Your task to perform on an android device: open device folders in google photos Image 0: 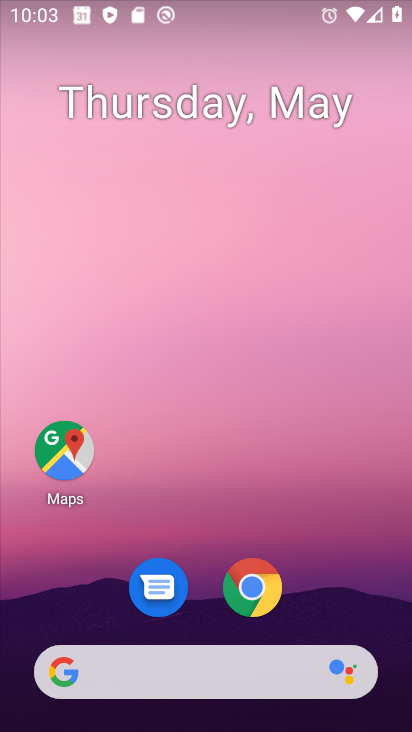
Step 0: drag from (385, 632) to (358, 16)
Your task to perform on an android device: open device folders in google photos Image 1: 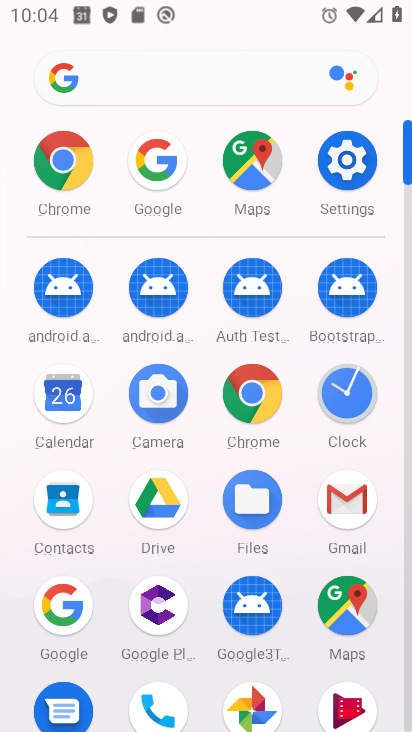
Step 1: click (242, 694)
Your task to perform on an android device: open device folders in google photos Image 2: 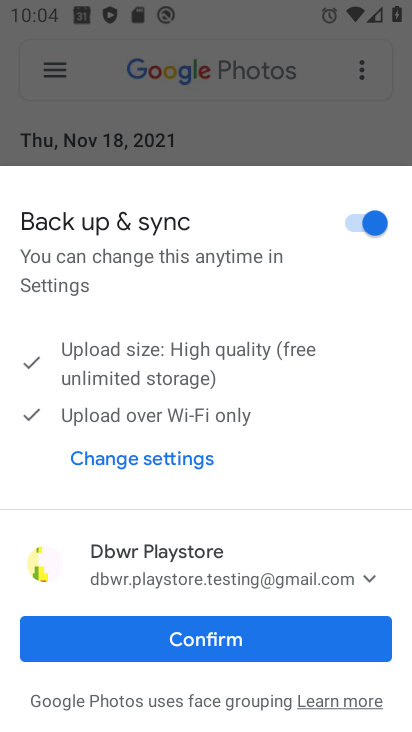
Step 2: click (211, 640)
Your task to perform on an android device: open device folders in google photos Image 3: 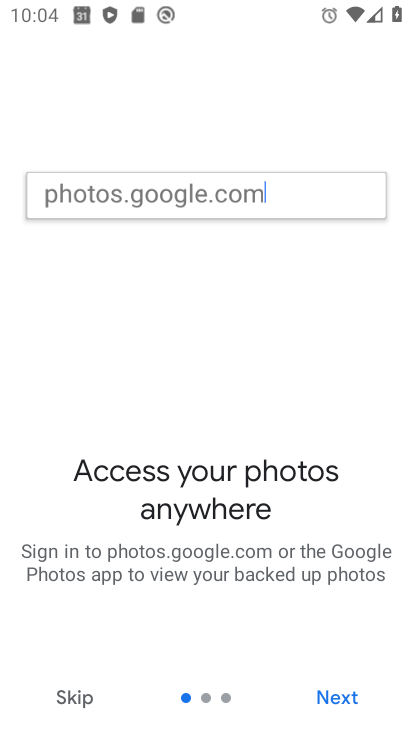
Step 3: click (342, 710)
Your task to perform on an android device: open device folders in google photos Image 4: 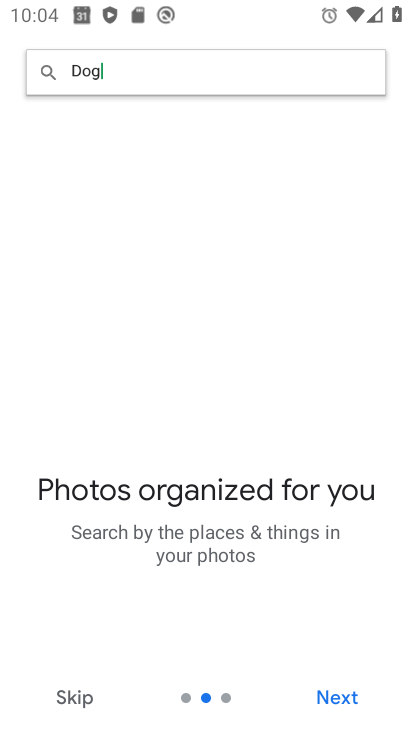
Step 4: click (342, 703)
Your task to perform on an android device: open device folders in google photos Image 5: 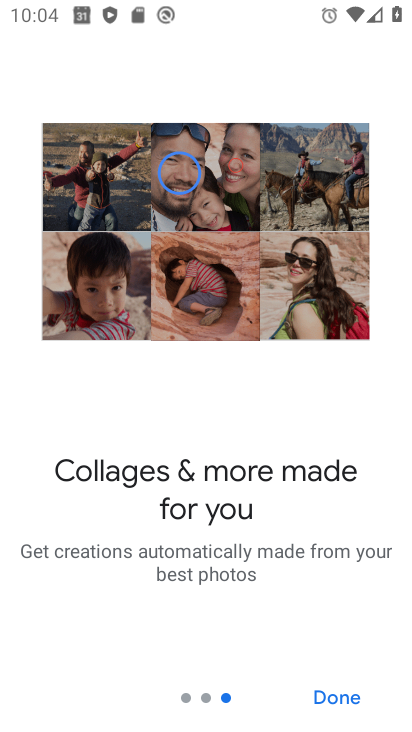
Step 5: click (341, 696)
Your task to perform on an android device: open device folders in google photos Image 6: 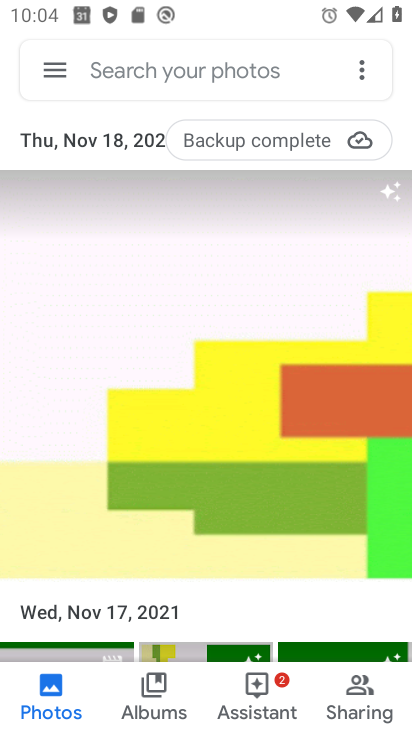
Step 6: click (237, 699)
Your task to perform on an android device: open device folders in google photos Image 7: 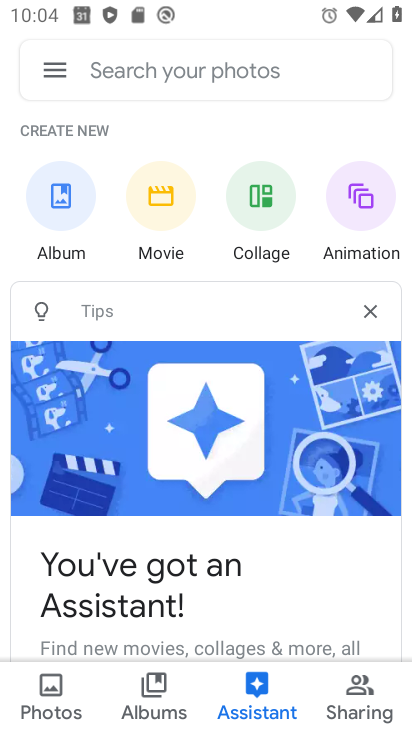
Step 7: click (57, 60)
Your task to perform on an android device: open device folders in google photos Image 8: 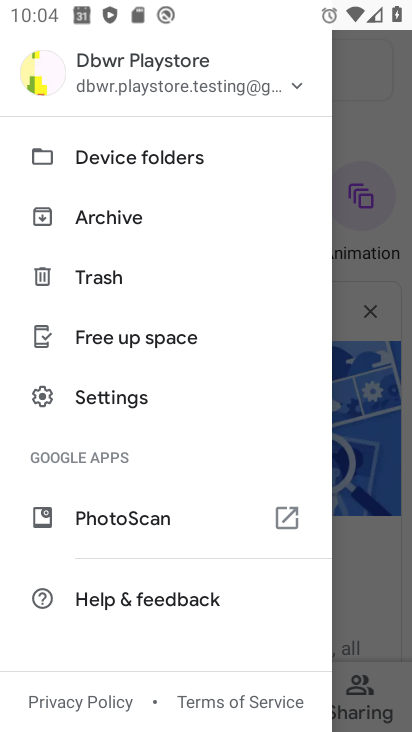
Step 8: click (136, 162)
Your task to perform on an android device: open device folders in google photos Image 9: 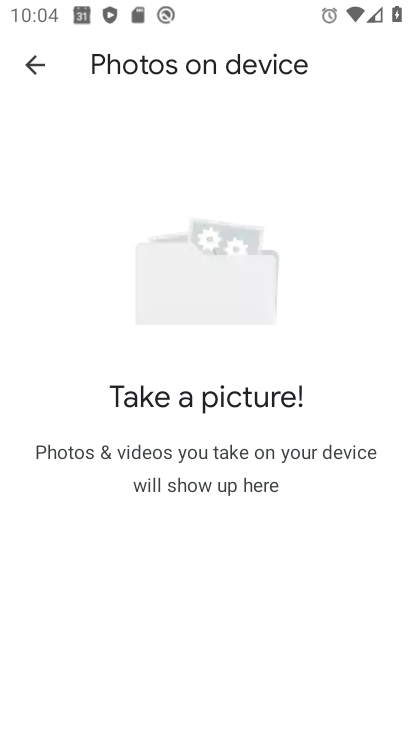
Step 9: task complete